Your task to perform on an android device: visit the assistant section in the google photos Image 0: 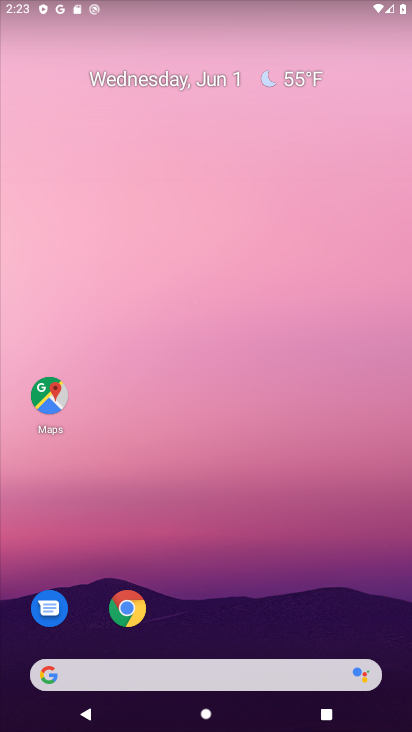
Step 0: drag from (283, 633) to (287, 0)
Your task to perform on an android device: visit the assistant section in the google photos Image 1: 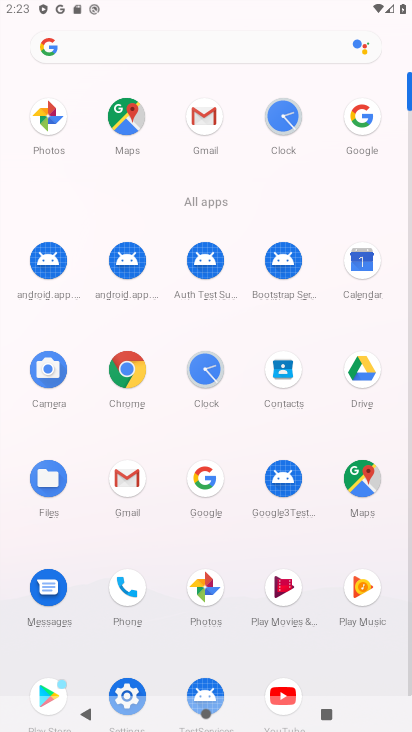
Step 1: click (208, 595)
Your task to perform on an android device: visit the assistant section in the google photos Image 2: 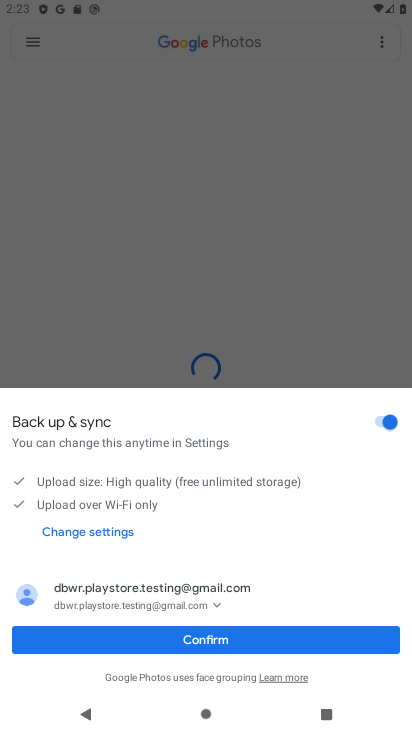
Step 2: click (255, 639)
Your task to perform on an android device: visit the assistant section in the google photos Image 3: 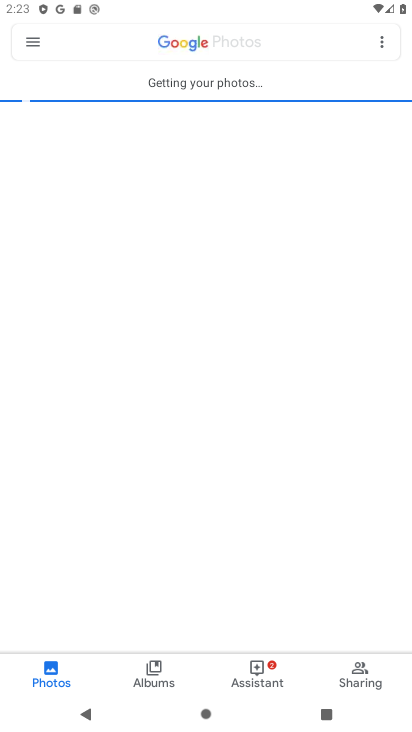
Step 3: click (253, 670)
Your task to perform on an android device: visit the assistant section in the google photos Image 4: 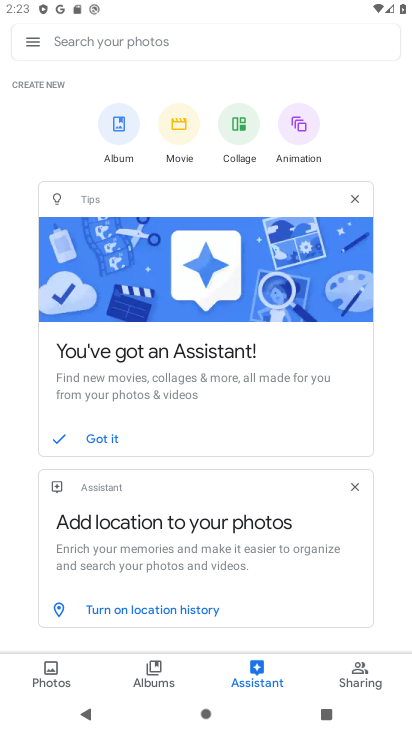
Step 4: task complete